Your task to perform on an android device: change timer sound Image 0: 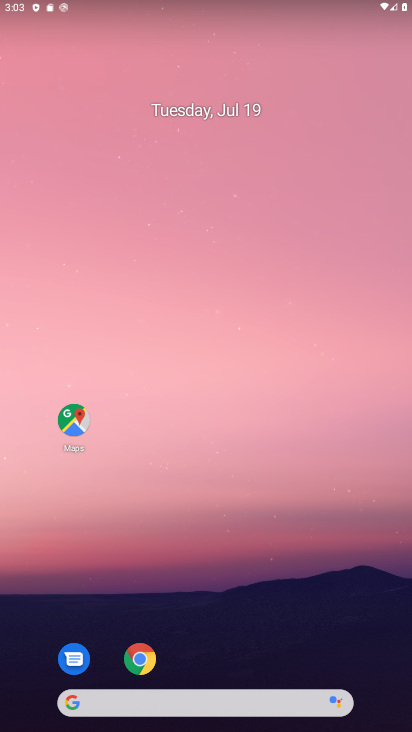
Step 0: drag from (242, 618) to (218, 227)
Your task to perform on an android device: change timer sound Image 1: 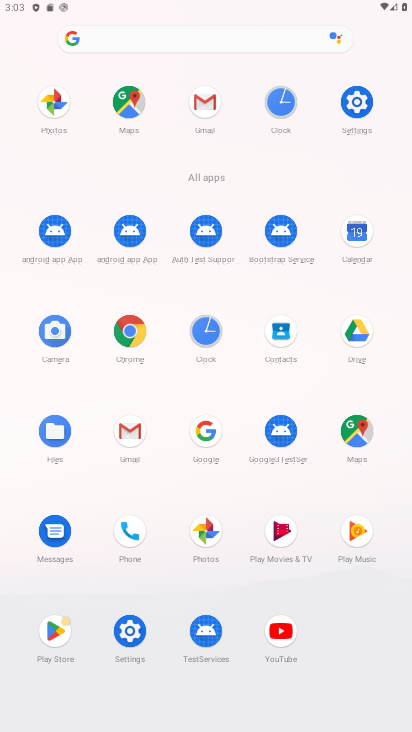
Step 1: click (282, 111)
Your task to perform on an android device: change timer sound Image 2: 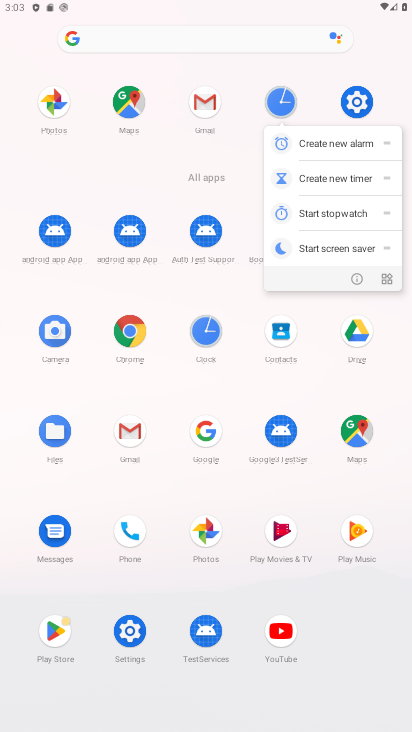
Step 2: click (281, 106)
Your task to perform on an android device: change timer sound Image 3: 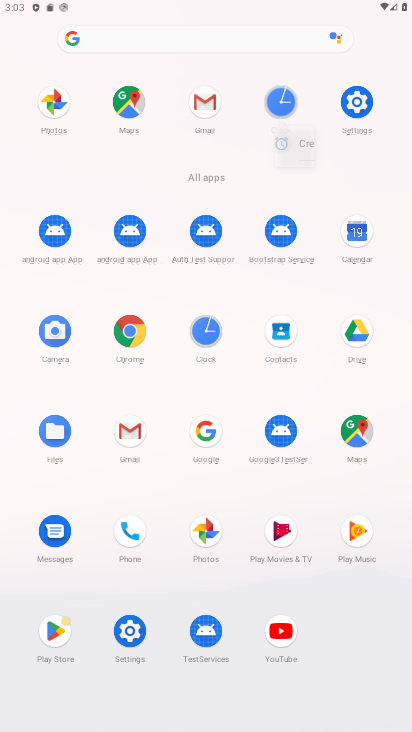
Step 3: click (281, 106)
Your task to perform on an android device: change timer sound Image 4: 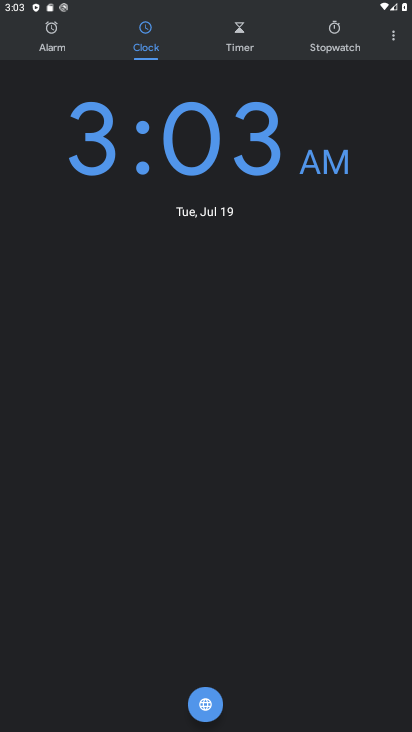
Step 4: click (387, 34)
Your task to perform on an android device: change timer sound Image 5: 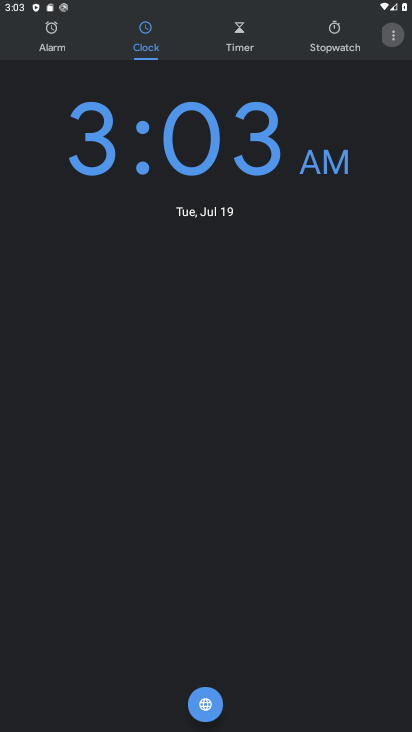
Step 5: click (387, 34)
Your task to perform on an android device: change timer sound Image 6: 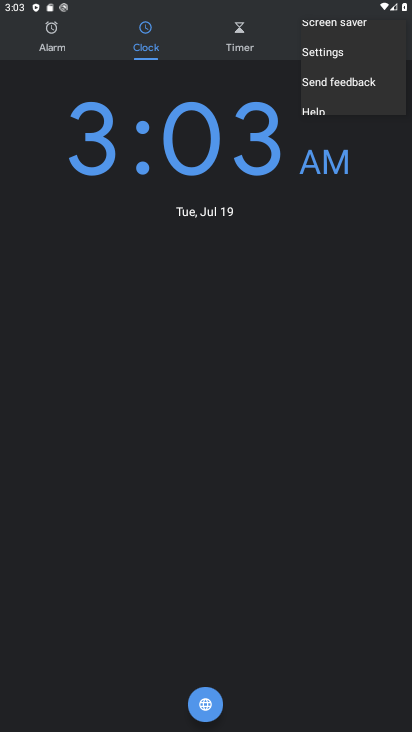
Step 6: click (388, 34)
Your task to perform on an android device: change timer sound Image 7: 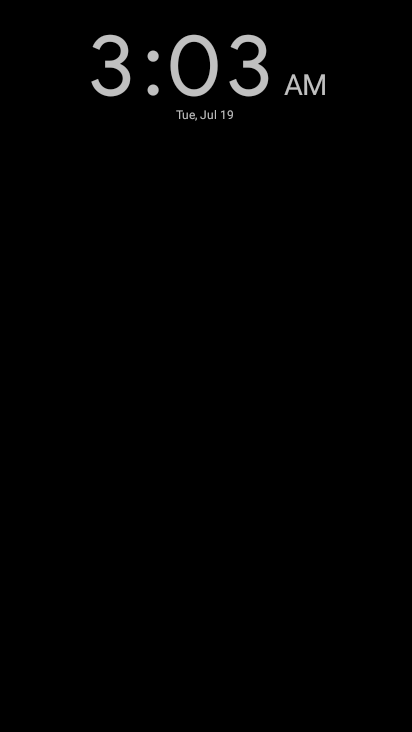
Step 7: press back button
Your task to perform on an android device: change timer sound Image 8: 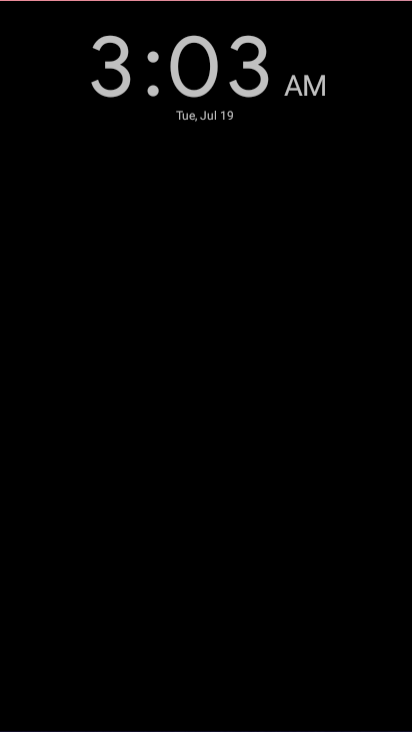
Step 8: press back button
Your task to perform on an android device: change timer sound Image 9: 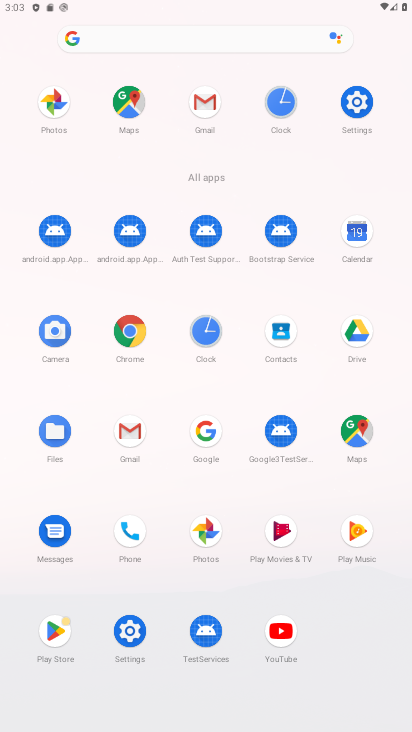
Step 9: click (276, 101)
Your task to perform on an android device: change timer sound Image 10: 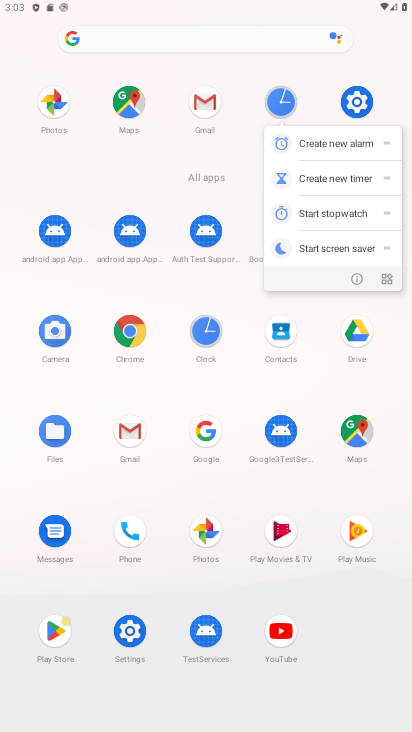
Step 10: click (275, 103)
Your task to perform on an android device: change timer sound Image 11: 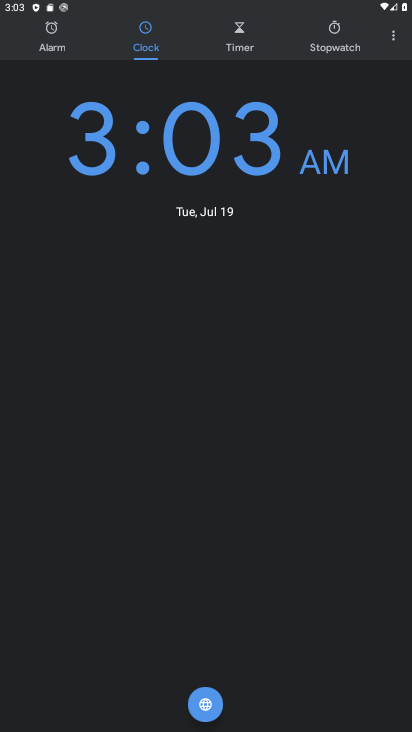
Step 11: drag from (395, 36) to (349, 98)
Your task to perform on an android device: change timer sound Image 12: 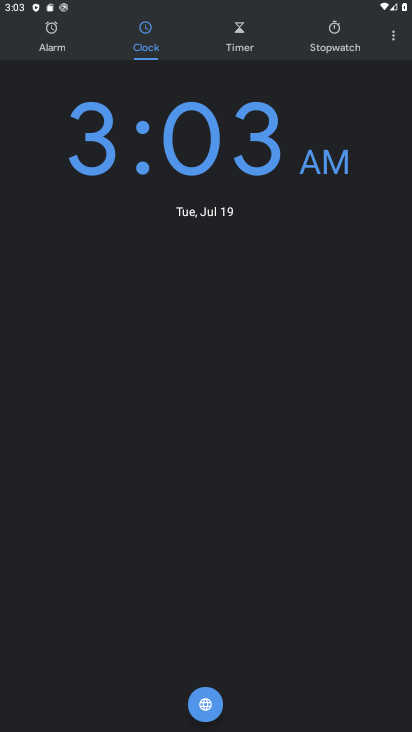
Step 12: click (332, 55)
Your task to perform on an android device: change timer sound Image 13: 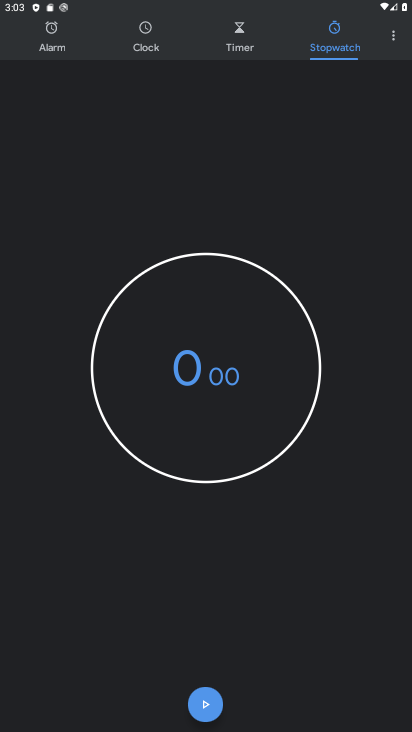
Step 13: click (387, 42)
Your task to perform on an android device: change timer sound Image 14: 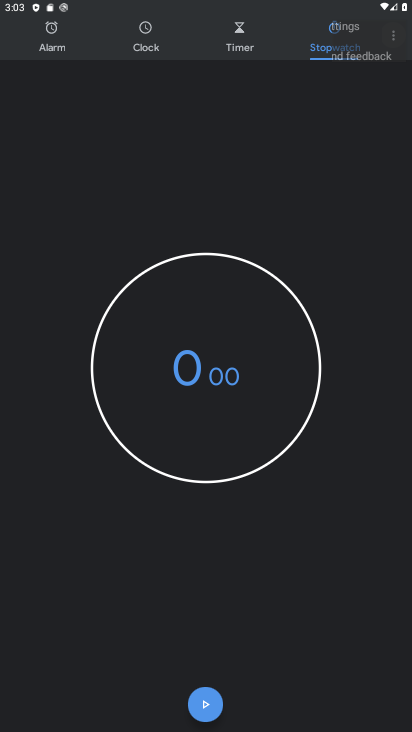
Step 14: click (388, 41)
Your task to perform on an android device: change timer sound Image 15: 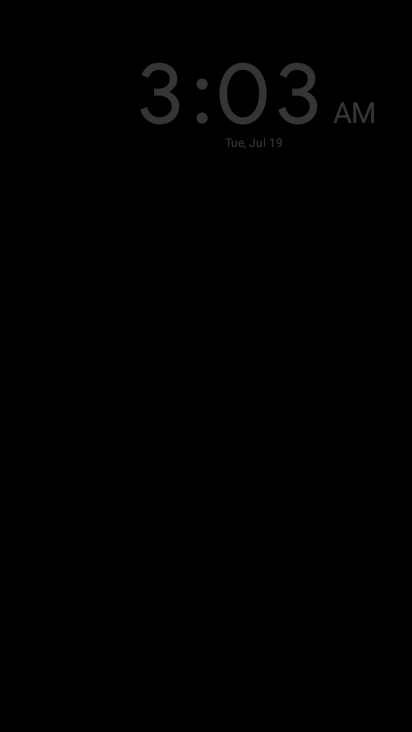
Step 15: click (306, 69)
Your task to perform on an android device: change timer sound Image 16: 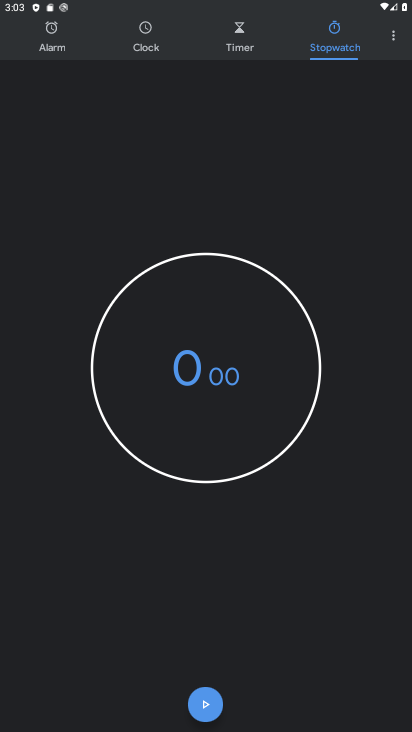
Step 16: drag from (394, 34) to (333, 66)
Your task to perform on an android device: change timer sound Image 17: 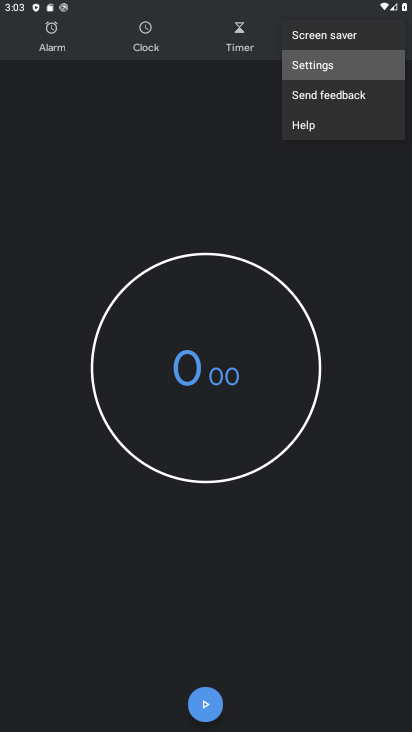
Step 17: click (332, 66)
Your task to perform on an android device: change timer sound Image 18: 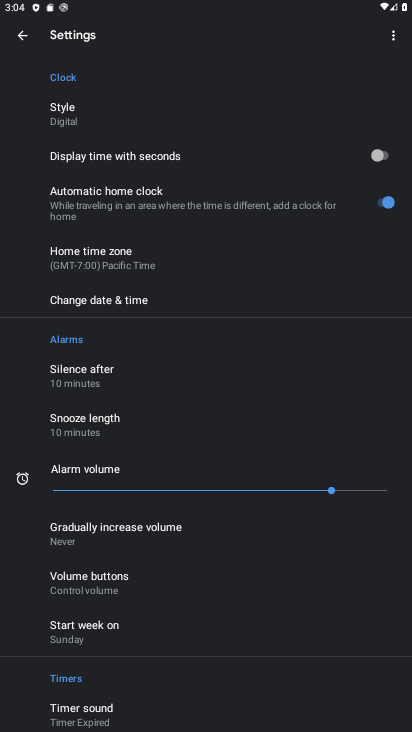
Step 18: click (92, 702)
Your task to perform on an android device: change timer sound Image 19: 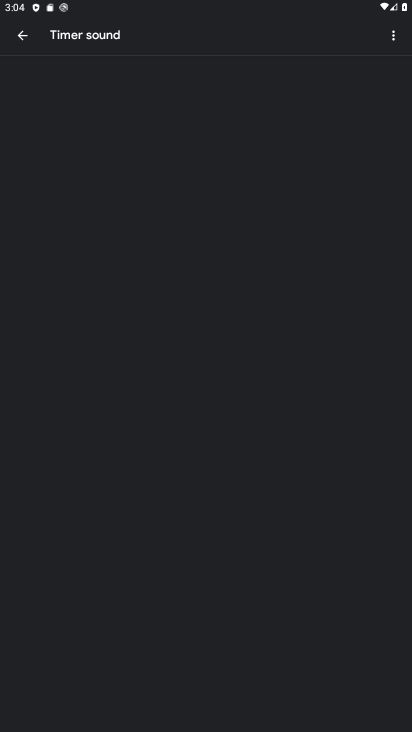
Step 19: click (87, 705)
Your task to perform on an android device: change timer sound Image 20: 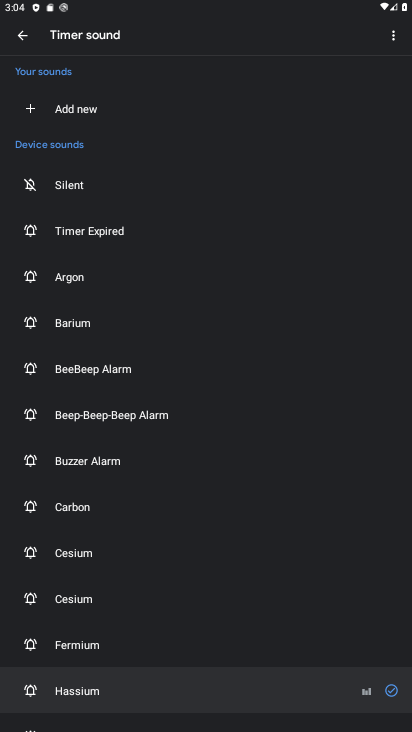
Step 20: click (68, 465)
Your task to perform on an android device: change timer sound Image 21: 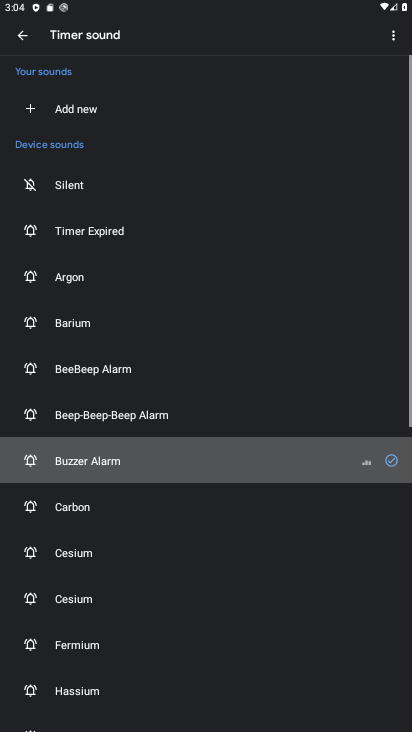
Step 21: click (68, 461)
Your task to perform on an android device: change timer sound Image 22: 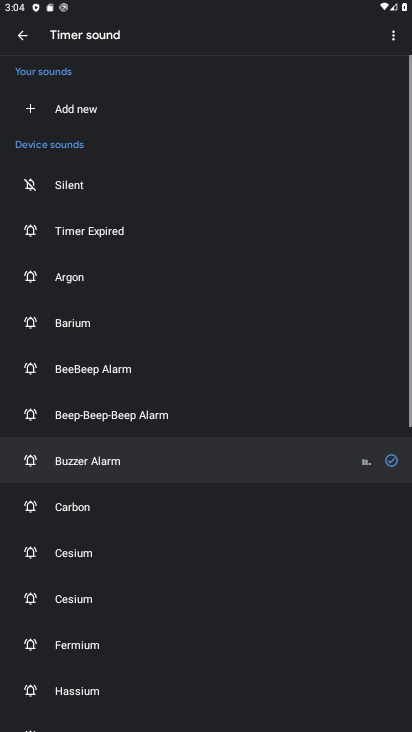
Step 22: click (72, 460)
Your task to perform on an android device: change timer sound Image 23: 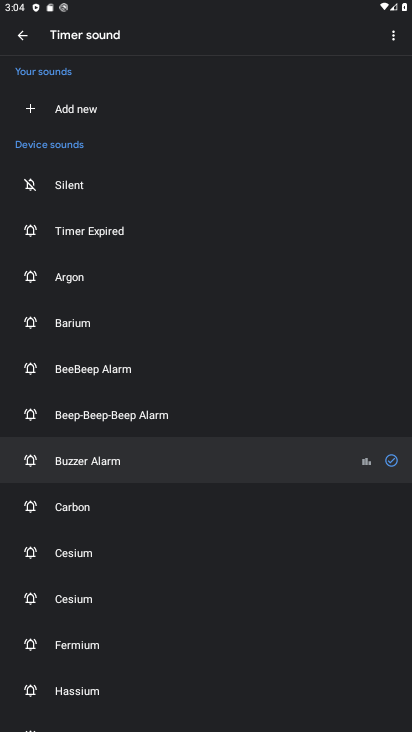
Step 23: task complete